Your task to perform on an android device: Open the stopwatch Image 0: 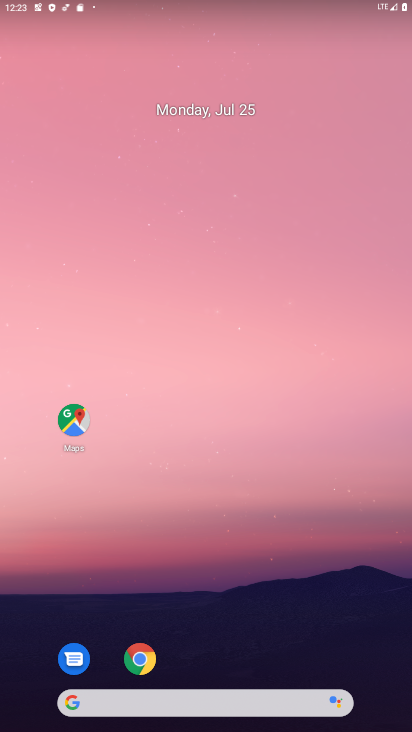
Step 0: drag from (19, 694) to (250, 120)
Your task to perform on an android device: Open the stopwatch Image 1: 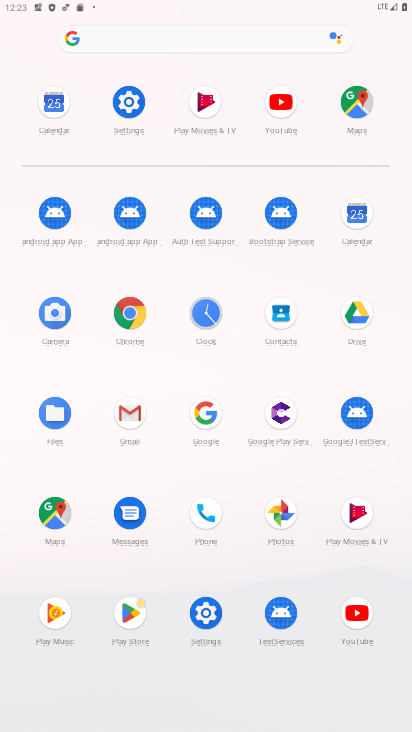
Step 1: click (201, 313)
Your task to perform on an android device: Open the stopwatch Image 2: 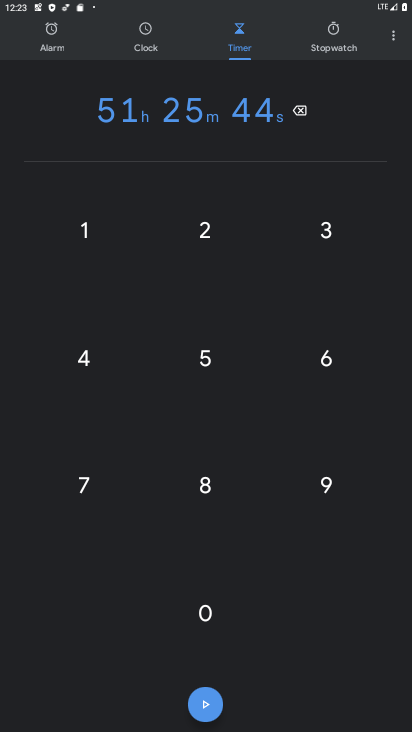
Step 2: click (318, 38)
Your task to perform on an android device: Open the stopwatch Image 3: 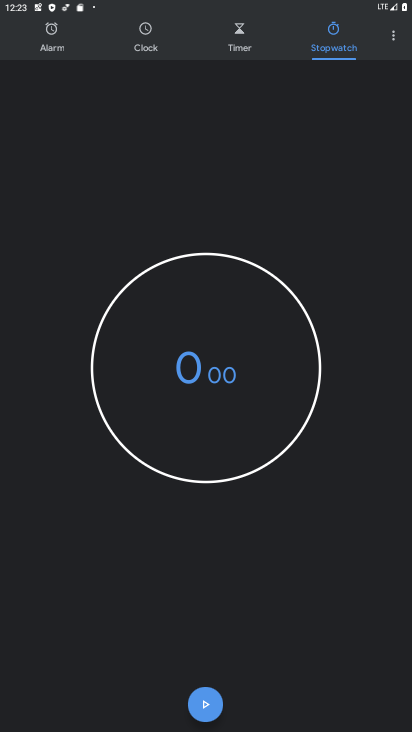
Step 3: click (212, 374)
Your task to perform on an android device: Open the stopwatch Image 4: 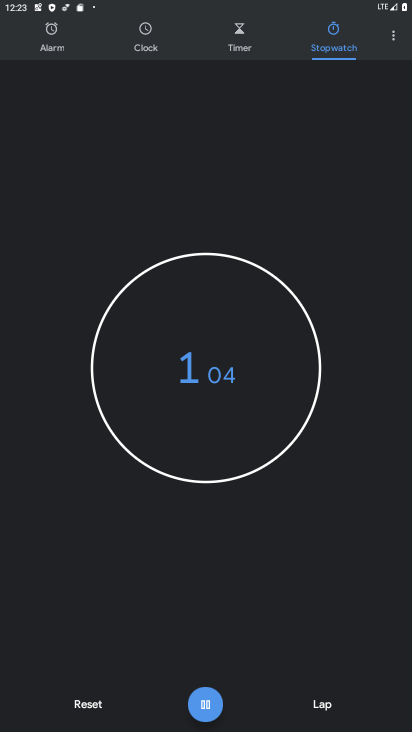
Step 4: click (184, 347)
Your task to perform on an android device: Open the stopwatch Image 5: 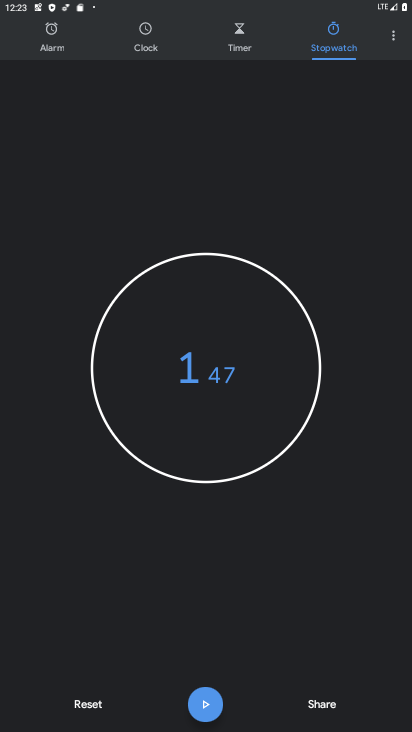
Step 5: task complete